Your task to perform on an android device: open app "Mercado Libre" (install if not already installed) Image 0: 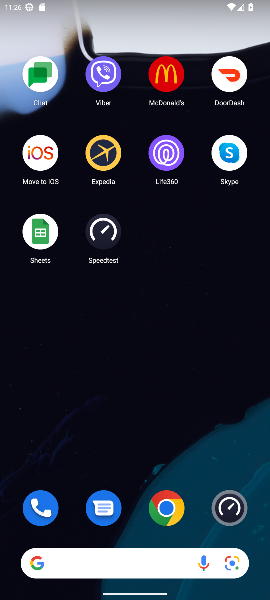
Step 0: drag from (103, 558) to (136, 33)
Your task to perform on an android device: open app "Mercado Libre" (install if not already installed) Image 1: 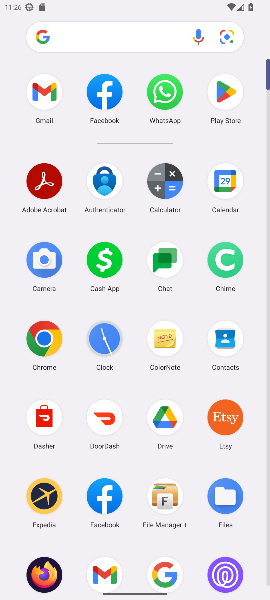
Step 1: click (215, 96)
Your task to perform on an android device: open app "Mercado Libre" (install if not already installed) Image 2: 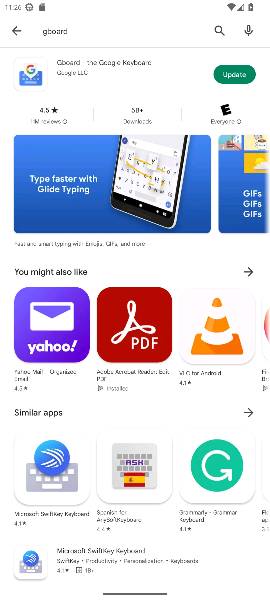
Step 2: click (224, 28)
Your task to perform on an android device: open app "Mercado Libre" (install if not already installed) Image 3: 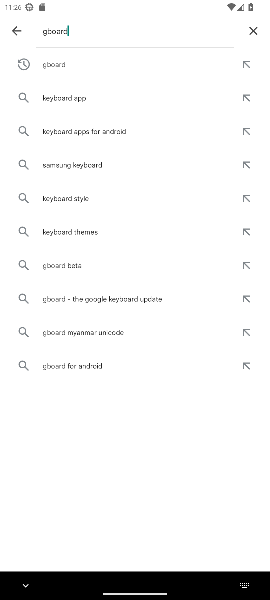
Step 3: click (258, 24)
Your task to perform on an android device: open app "Mercado Libre" (install if not already installed) Image 4: 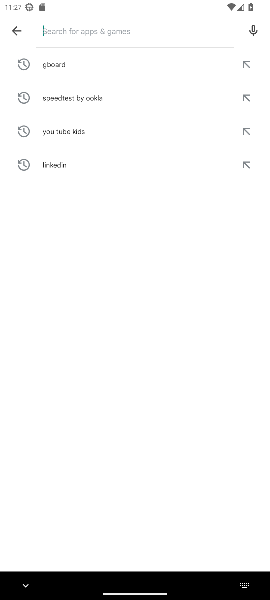
Step 4: type "mercado libre"
Your task to perform on an android device: open app "Mercado Libre" (install if not already installed) Image 5: 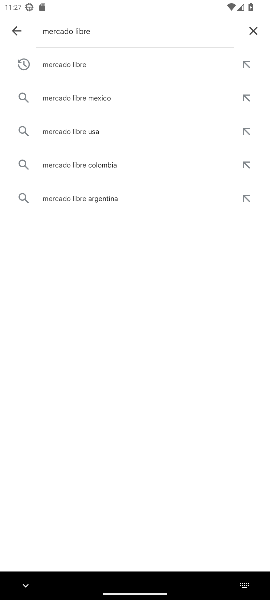
Step 5: click (75, 56)
Your task to perform on an android device: open app "Mercado Libre" (install if not already installed) Image 6: 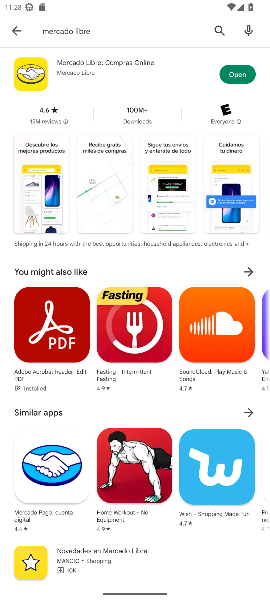
Step 6: click (232, 70)
Your task to perform on an android device: open app "Mercado Libre" (install if not already installed) Image 7: 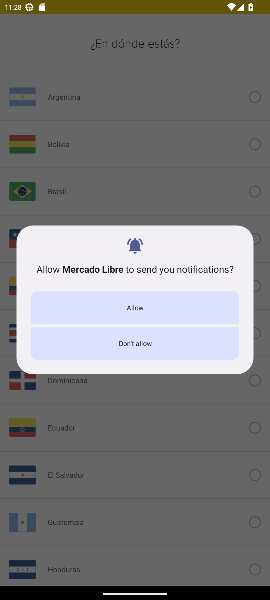
Step 7: task complete